Your task to perform on an android device: Search for "dell alienware" on bestbuy, select the first entry, and add it to the cart. Image 0: 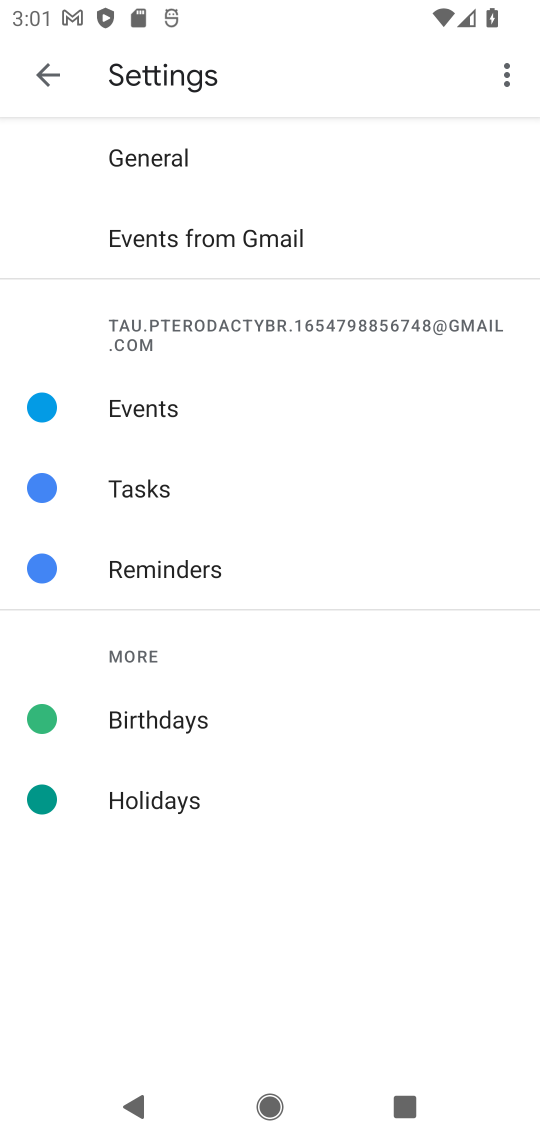
Step 0: press home button
Your task to perform on an android device: Search for "dell alienware" on bestbuy, select the first entry, and add it to the cart. Image 1: 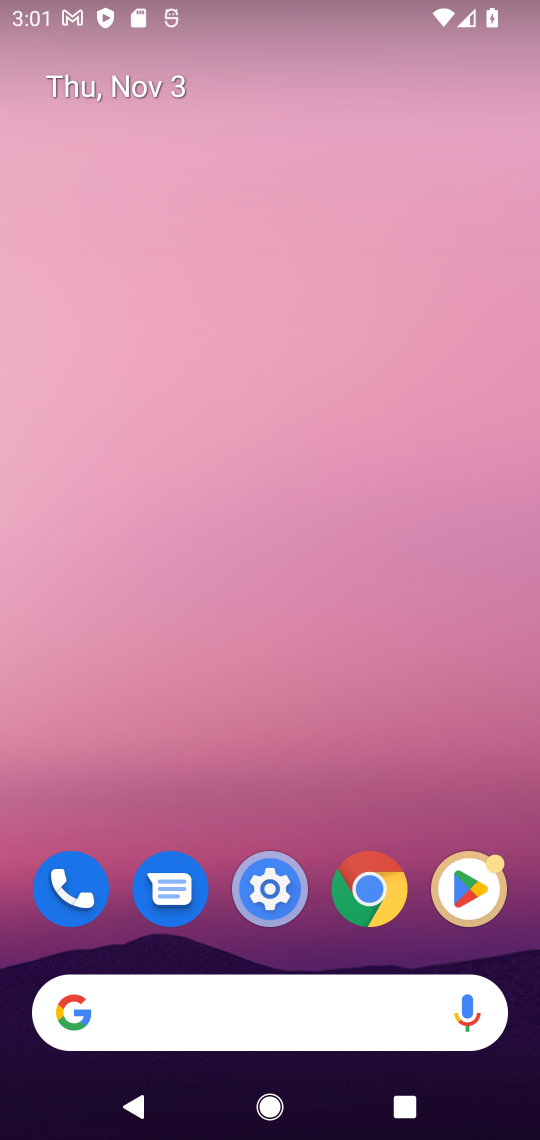
Step 1: click (376, 894)
Your task to perform on an android device: Search for "dell alienware" on bestbuy, select the first entry, and add it to the cart. Image 2: 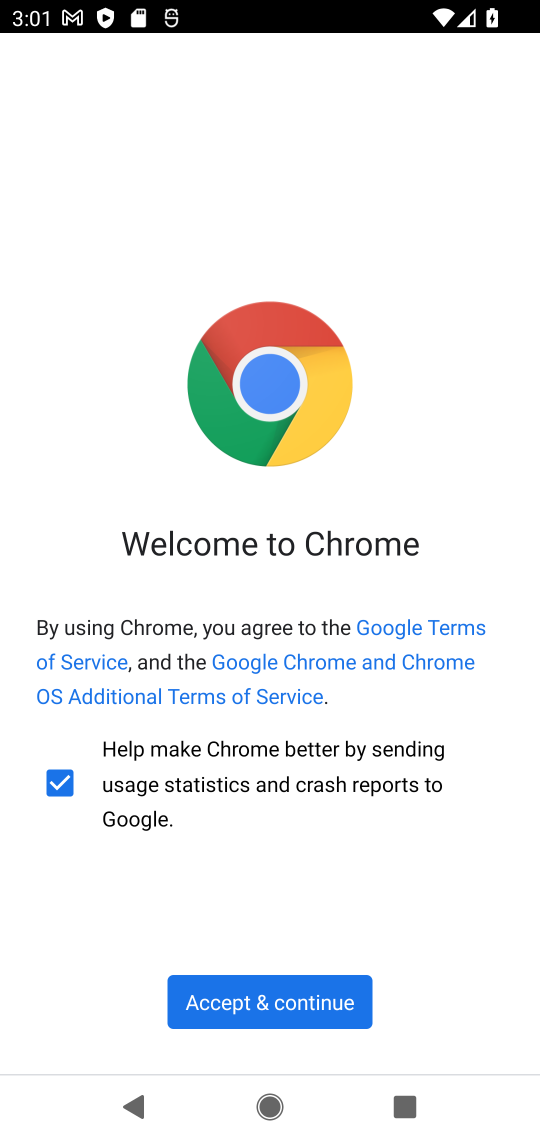
Step 2: click (262, 1002)
Your task to perform on an android device: Search for "dell alienware" on bestbuy, select the first entry, and add it to the cart. Image 3: 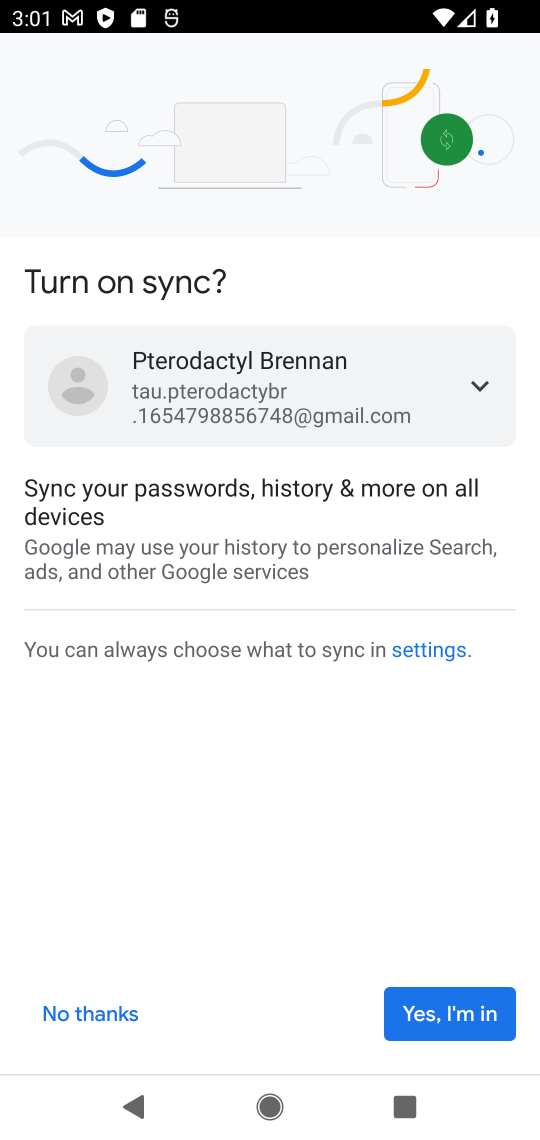
Step 3: click (414, 1023)
Your task to perform on an android device: Search for "dell alienware" on bestbuy, select the first entry, and add it to the cart. Image 4: 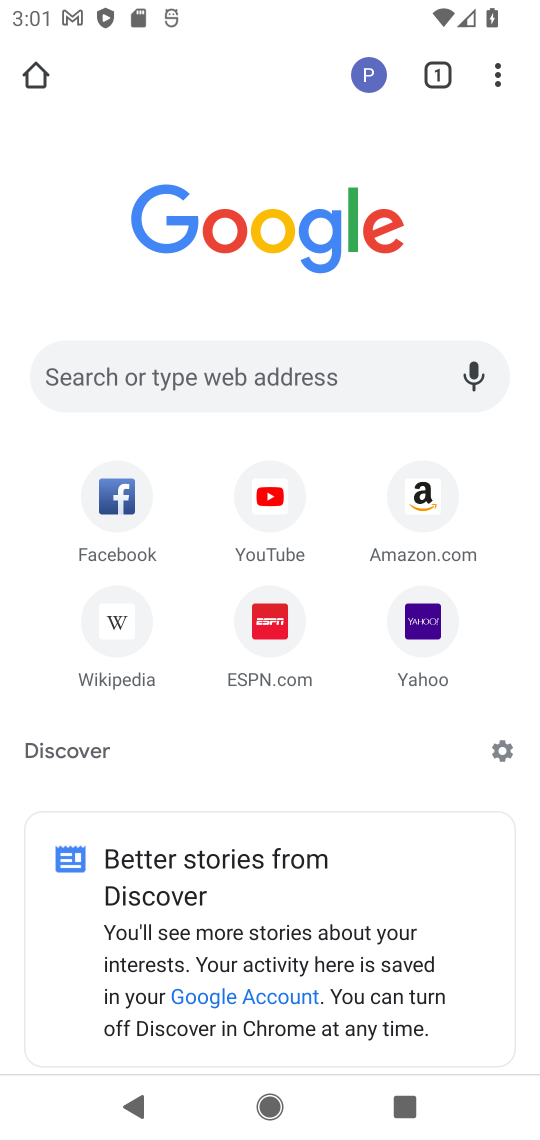
Step 4: click (218, 370)
Your task to perform on an android device: Search for "dell alienware" on bestbuy, select the first entry, and add it to the cart. Image 5: 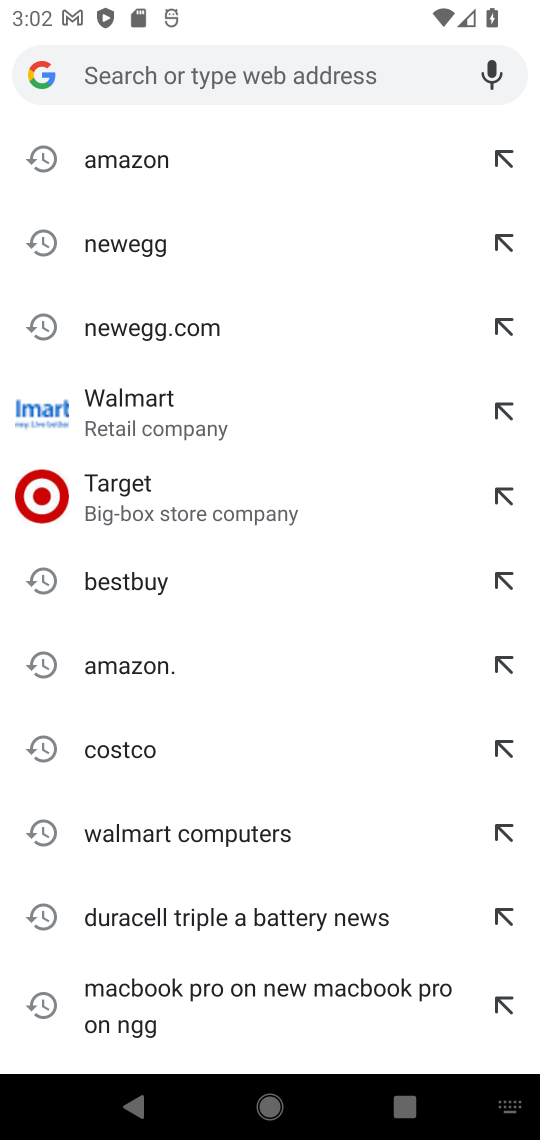
Step 5: type "be"
Your task to perform on an android device: Search for "dell alienware" on bestbuy, select the first entry, and add it to the cart. Image 6: 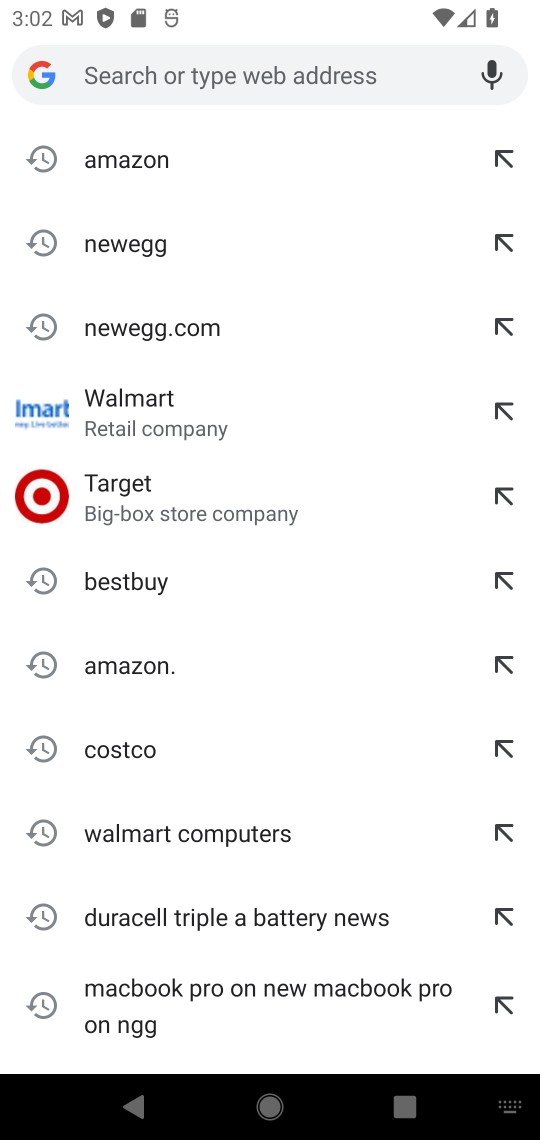
Step 6: click (158, 586)
Your task to perform on an android device: Search for "dell alienware" on bestbuy, select the first entry, and add it to the cart. Image 7: 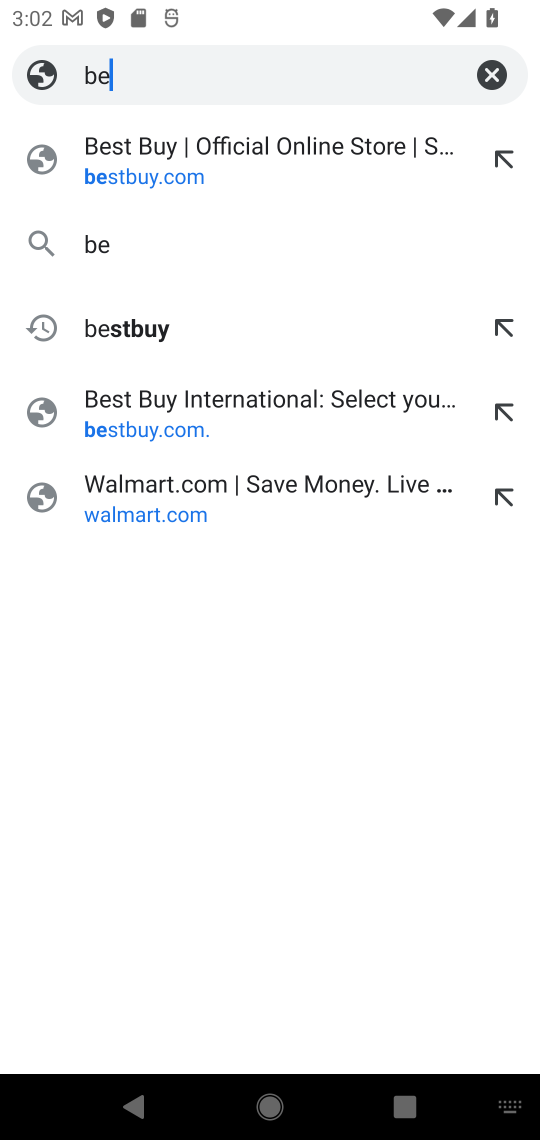
Step 7: click (272, 148)
Your task to perform on an android device: Search for "dell alienware" on bestbuy, select the first entry, and add it to the cart. Image 8: 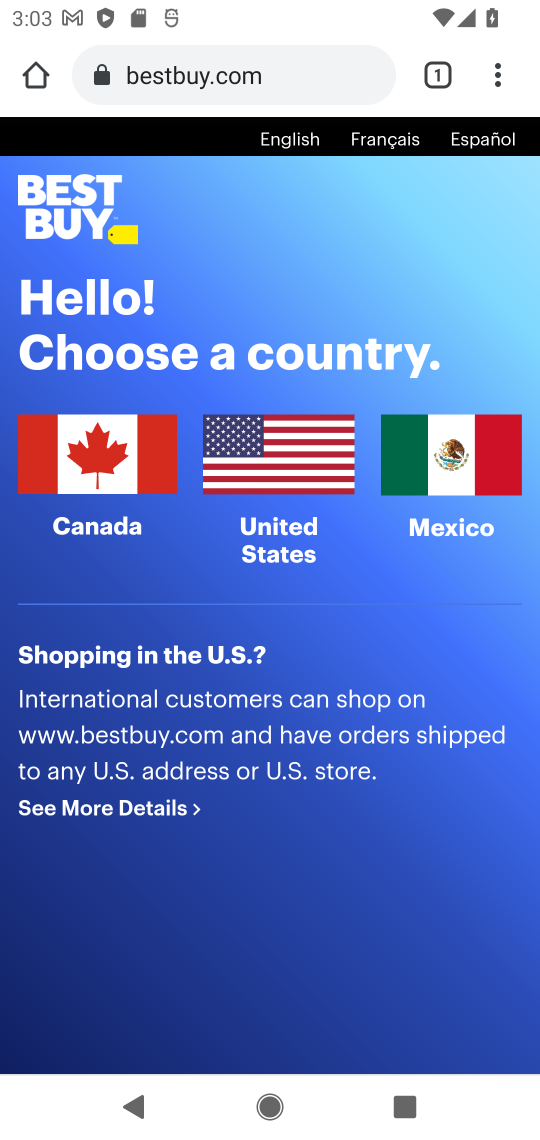
Step 8: click (305, 443)
Your task to perform on an android device: Search for "dell alienware" on bestbuy, select the first entry, and add it to the cart. Image 9: 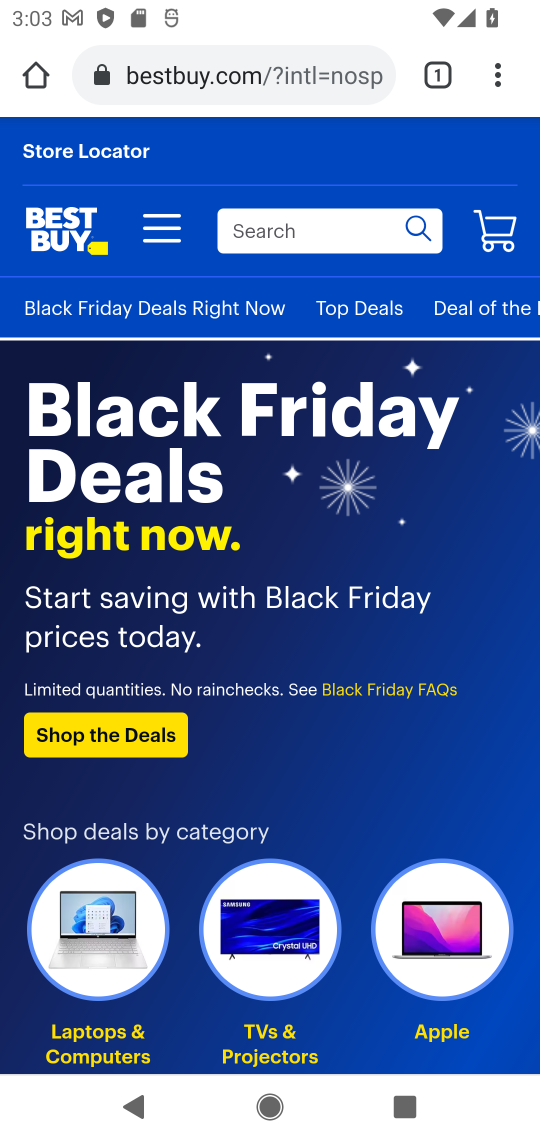
Step 9: click (356, 223)
Your task to perform on an android device: Search for "dell alienware" on bestbuy, select the first entry, and add it to the cart. Image 10: 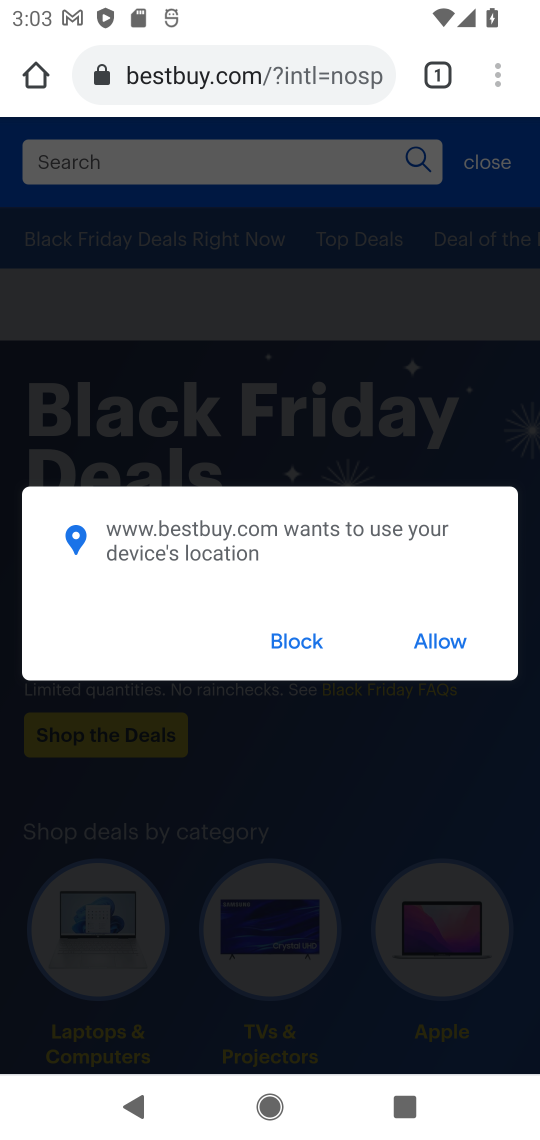
Step 10: type "dell alienware"
Your task to perform on an android device: Search for "dell alienware" on bestbuy, select the first entry, and add it to the cart. Image 11: 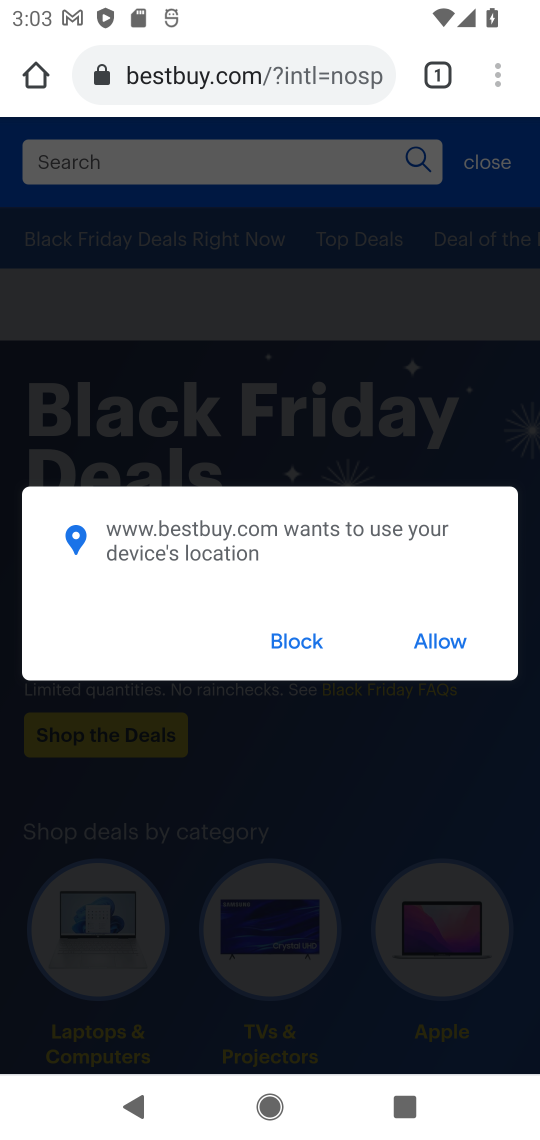
Step 11: click (444, 649)
Your task to perform on an android device: Search for "dell alienware" on bestbuy, select the first entry, and add it to the cart. Image 12: 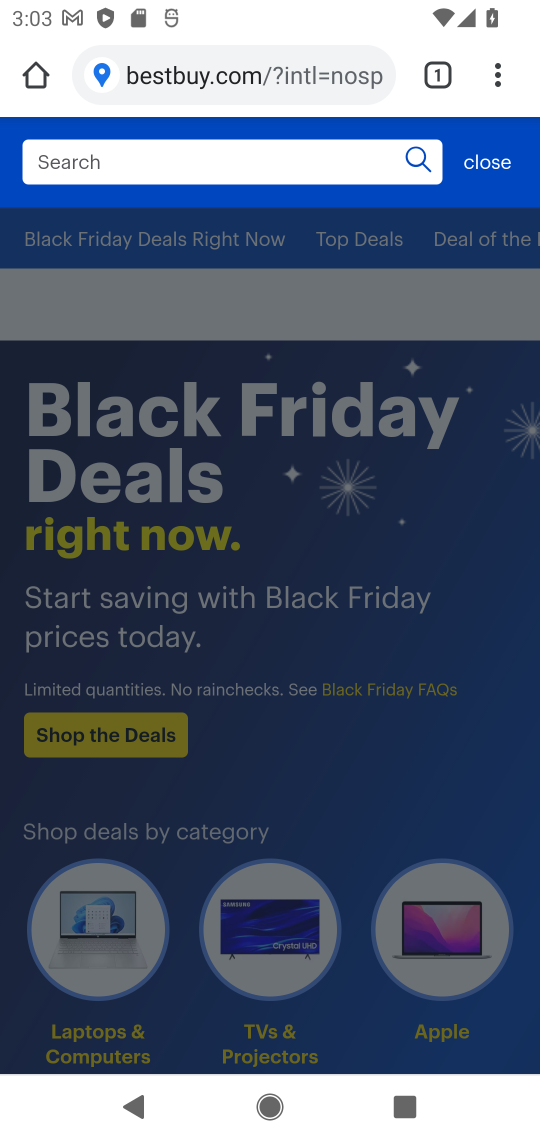
Step 12: type "dell "
Your task to perform on an android device: Search for "dell alienware" on bestbuy, select the first entry, and add it to the cart. Image 13: 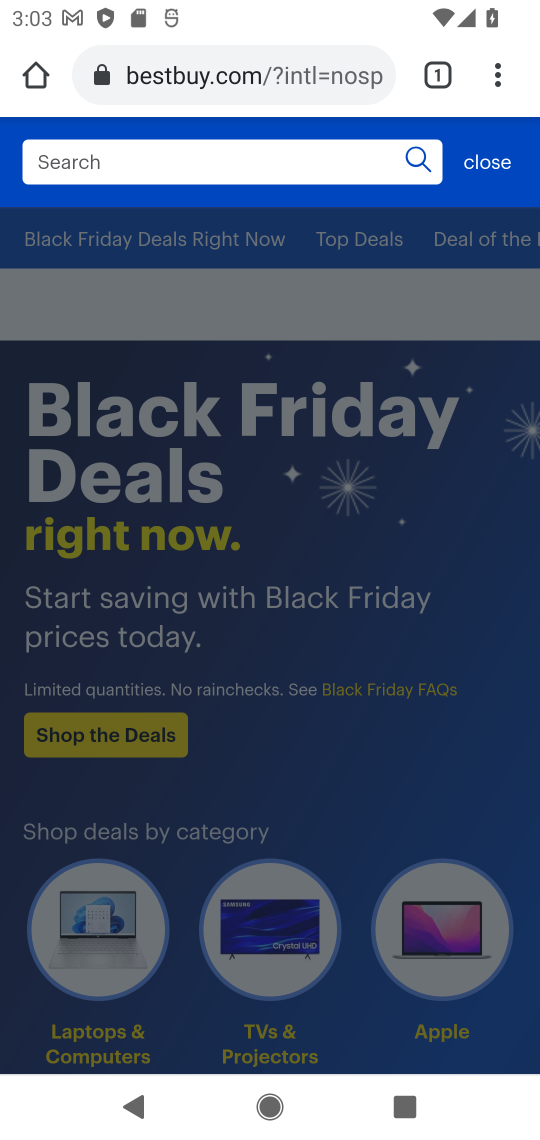
Step 13: type "dell alienware"
Your task to perform on an android device: Search for "dell alienware" on bestbuy, select the first entry, and add it to the cart. Image 14: 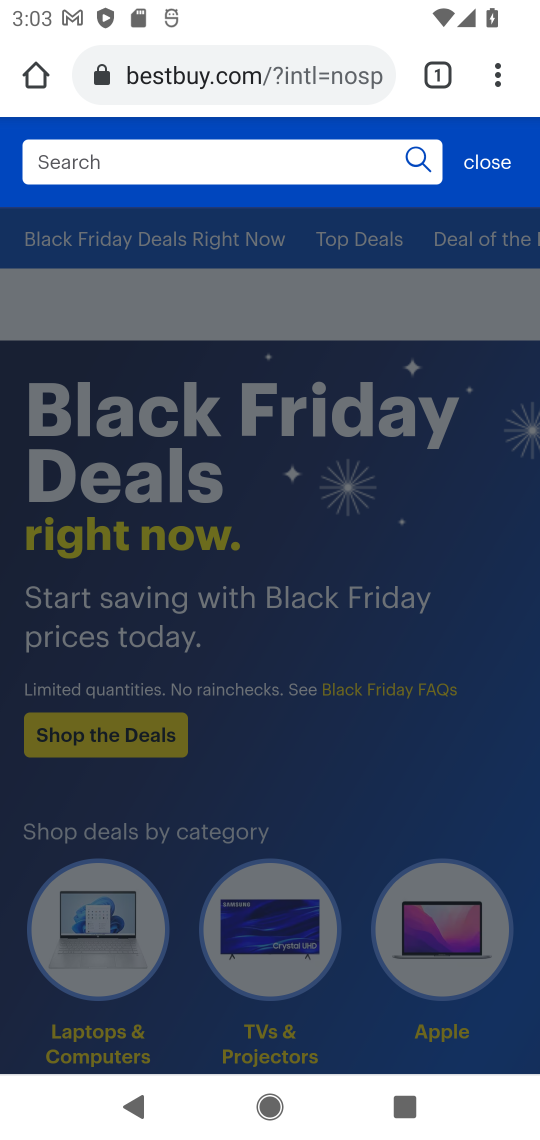
Step 14: click (313, 163)
Your task to perform on an android device: Search for "dell alienware" on bestbuy, select the first entry, and add it to the cart. Image 15: 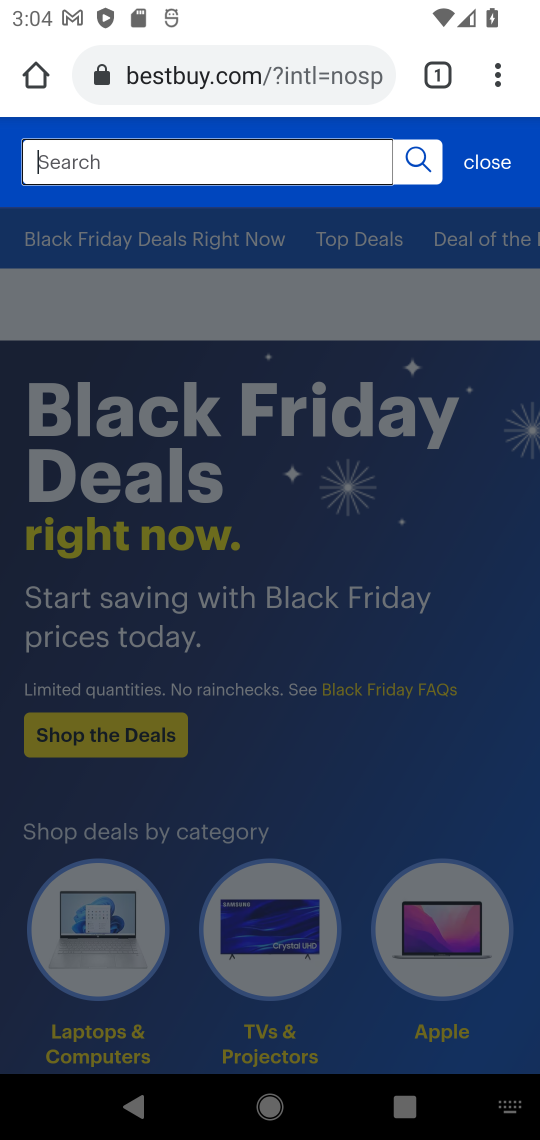
Step 15: type "dell alienware"
Your task to perform on an android device: Search for "dell alienware" on bestbuy, select the first entry, and add it to the cart. Image 16: 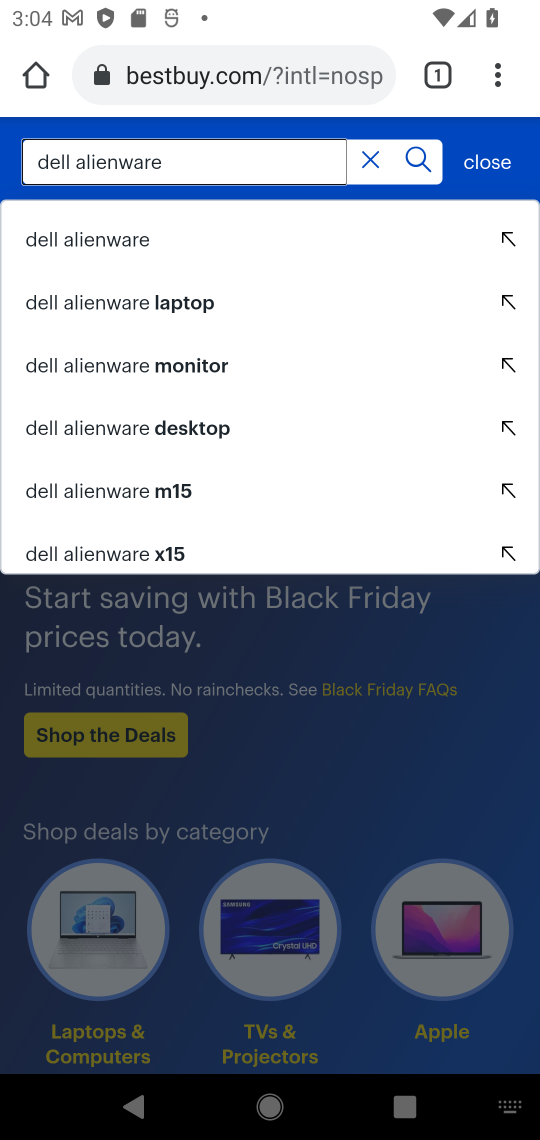
Step 16: click (66, 239)
Your task to perform on an android device: Search for "dell alienware" on bestbuy, select the first entry, and add it to the cart. Image 17: 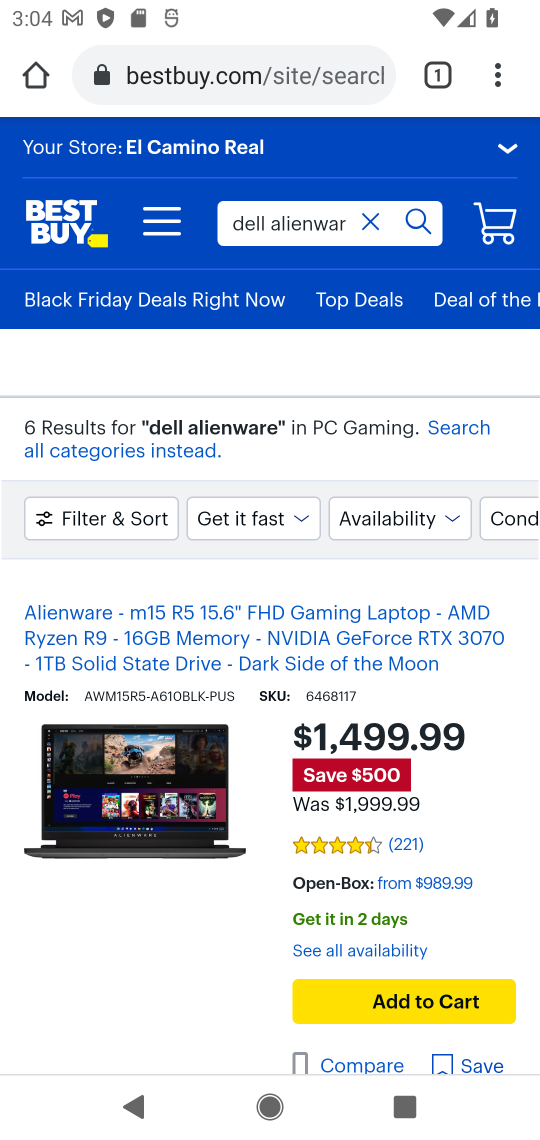
Step 17: click (435, 1002)
Your task to perform on an android device: Search for "dell alienware" on bestbuy, select the first entry, and add it to the cart. Image 18: 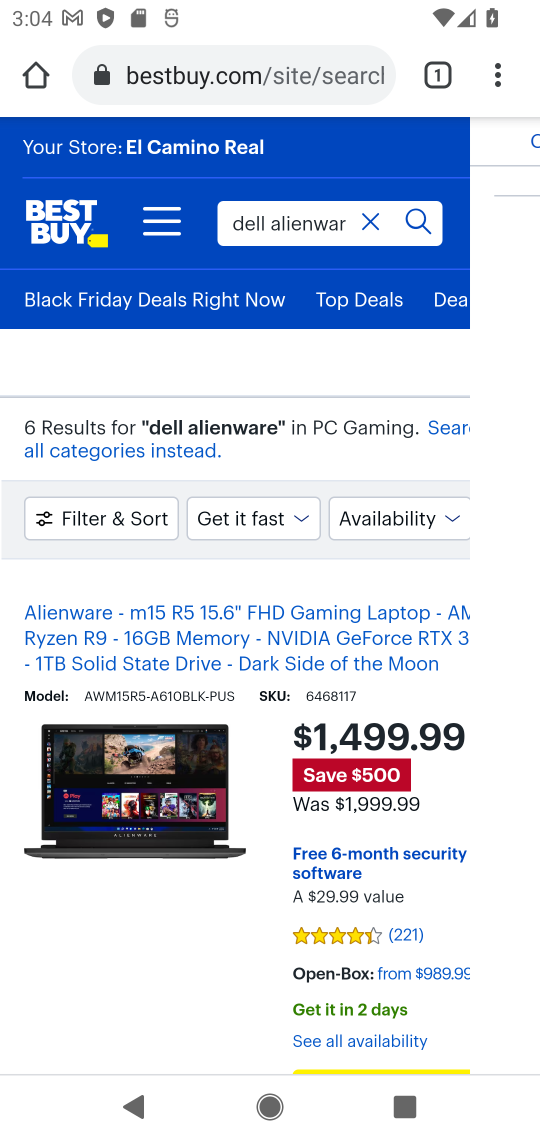
Step 18: task complete